Your task to perform on an android device: Open calendar and show me the second week of next month Image 0: 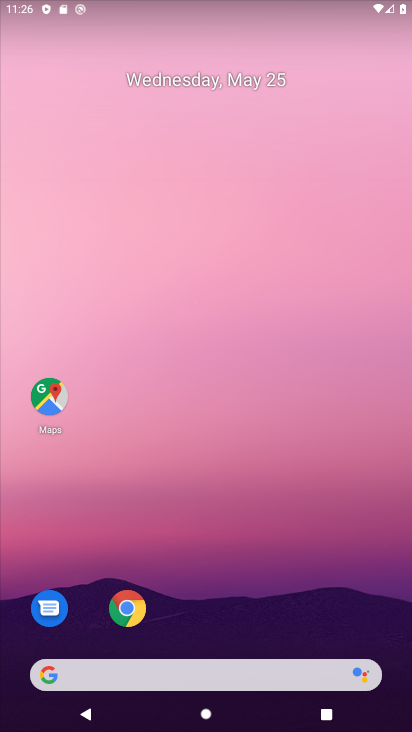
Step 0: click (169, 91)
Your task to perform on an android device: Open calendar and show me the second week of next month Image 1: 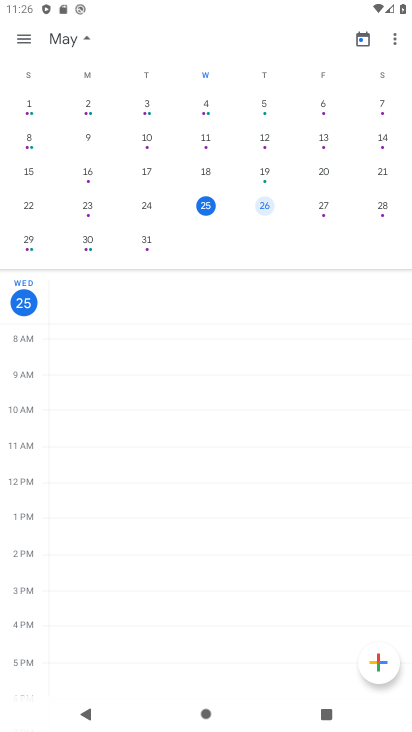
Step 1: drag from (388, 251) to (68, 140)
Your task to perform on an android device: Open calendar and show me the second week of next month Image 2: 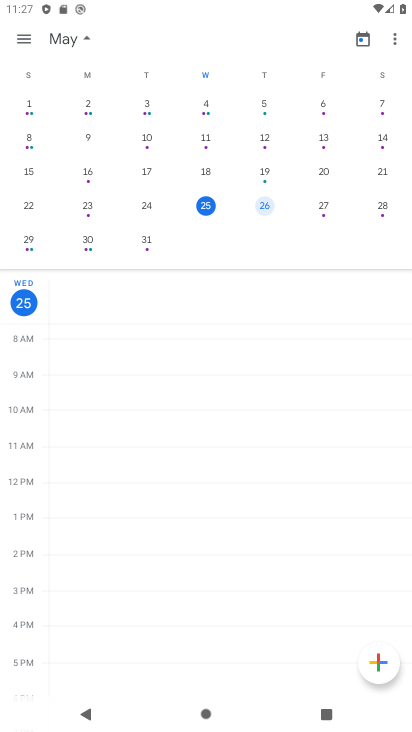
Step 2: drag from (338, 250) to (73, 208)
Your task to perform on an android device: Open calendar and show me the second week of next month Image 3: 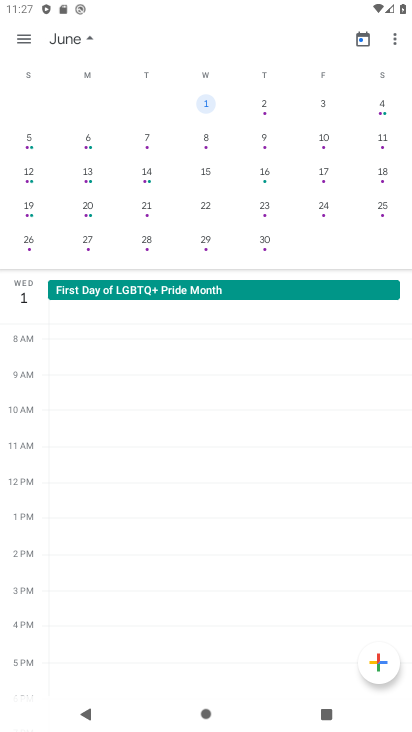
Step 3: click (207, 134)
Your task to perform on an android device: Open calendar and show me the second week of next month Image 4: 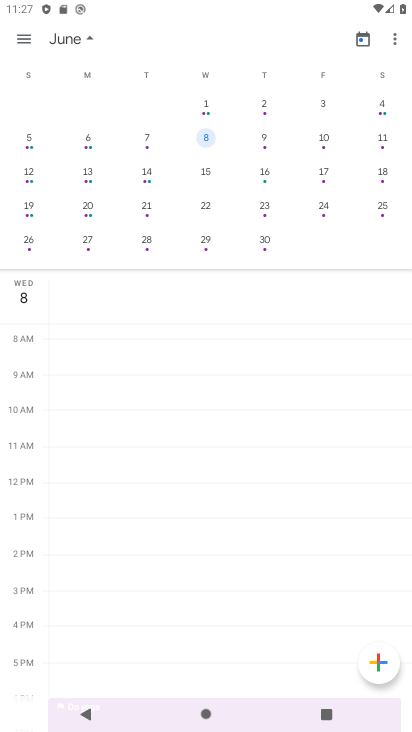
Step 4: click (208, 143)
Your task to perform on an android device: Open calendar and show me the second week of next month Image 5: 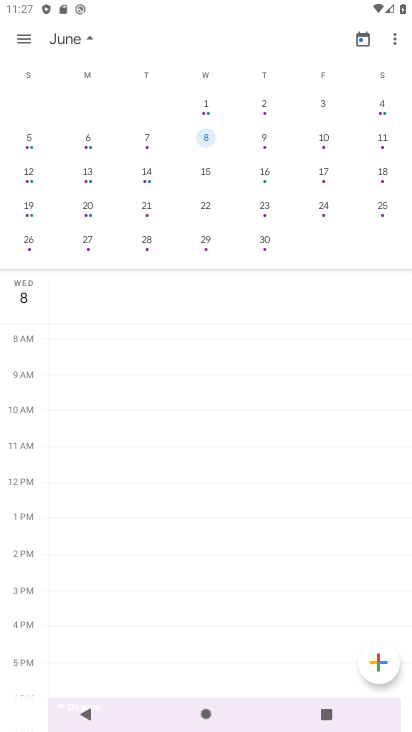
Step 5: task complete